Your task to perform on an android device: turn off picture-in-picture Image 0: 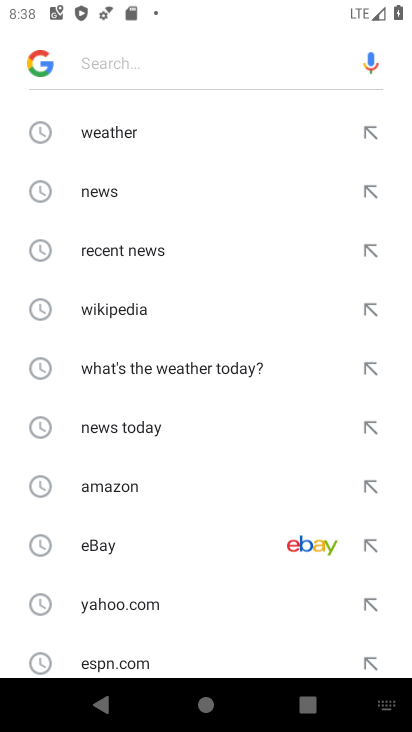
Step 0: press home button
Your task to perform on an android device: turn off picture-in-picture Image 1: 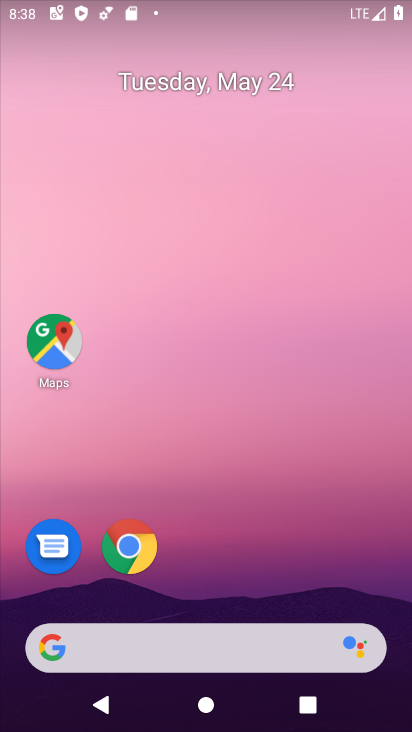
Step 1: click (134, 541)
Your task to perform on an android device: turn off picture-in-picture Image 2: 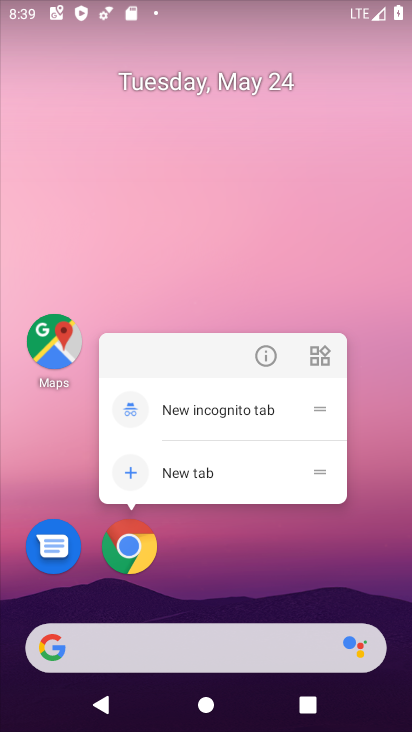
Step 2: click (255, 352)
Your task to perform on an android device: turn off picture-in-picture Image 3: 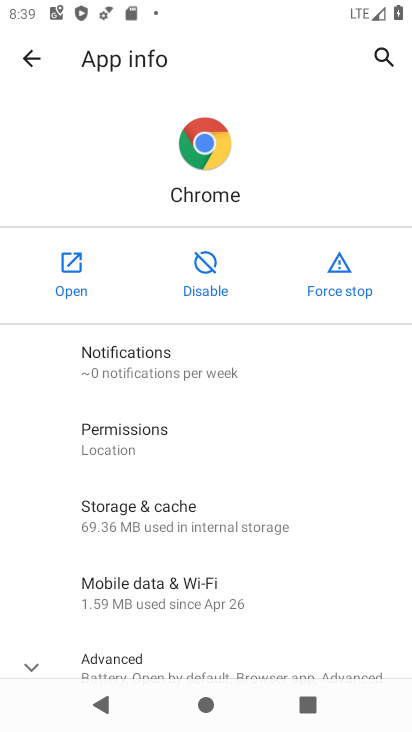
Step 3: click (32, 664)
Your task to perform on an android device: turn off picture-in-picture Image 4: 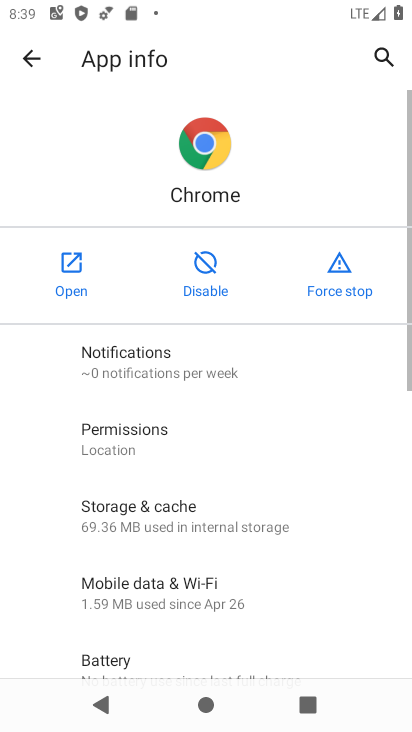
Step 4: drag from (173, 591) to (235, 64)
Your task to perform on an android device: turn off picture-in-picture Image 5: 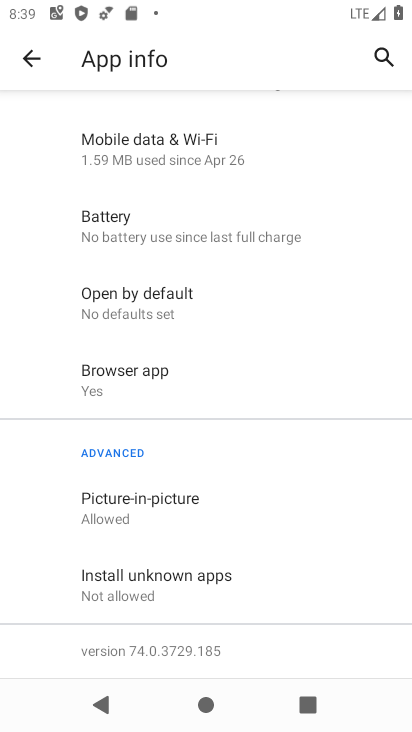
Step 5: click (139, 507)
Your task to perform on an android device: turn off picture-in-picture Image 6: 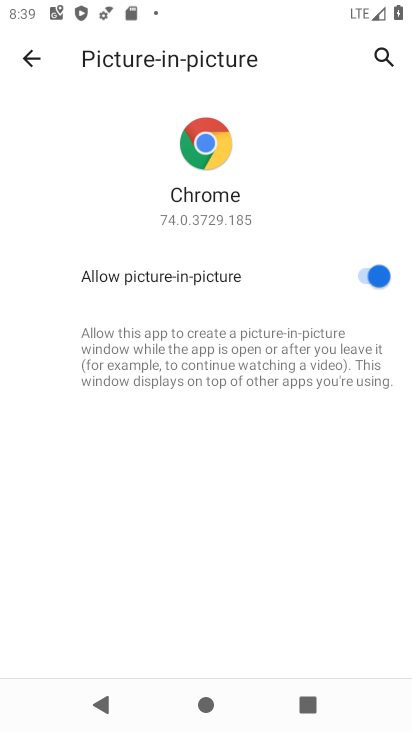
Step 6: click (362, 273)
Your task to perform on an android device: turn off picture-in-picture Image 7: 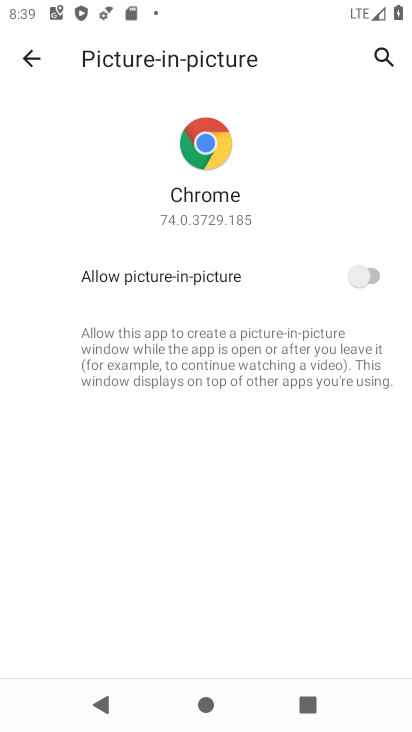
Step 7: task complete